Your task to perform on an android device: Open calendar and show me the fourth week of next month Image 0: 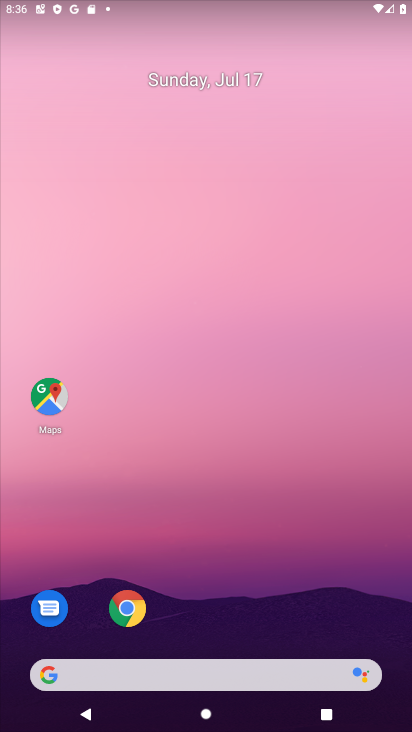
Step 0: drag from (242, 624) to (249, 352)
Your task to perform on an android device: Open calendar and show me the fourth week of next month Image 1: 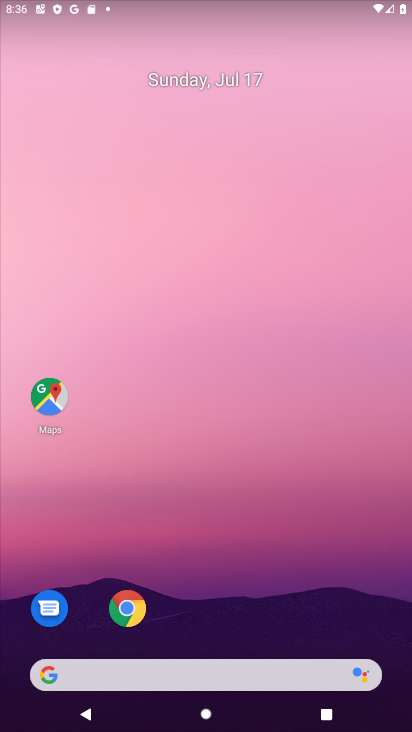
Step 1: drag from (210, 651) to (246, 305)
Your task to perform on an android device: Open calendar and show me the fourth week of next month Image 2: 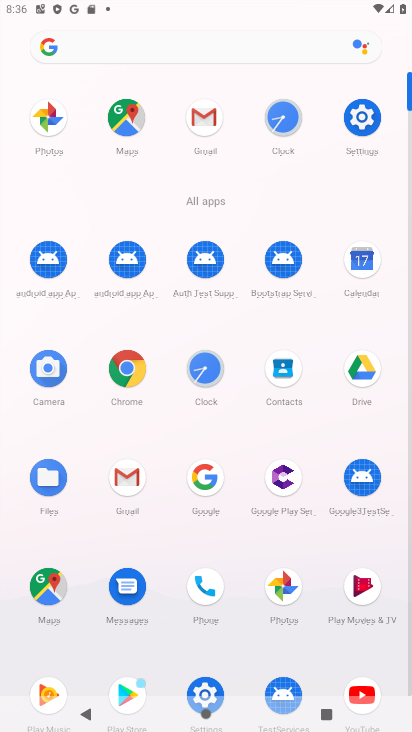
Step 2: click (374, 270)
Your task to perform on an android device: Open calendar and show me the fourth week of next month Image 3: 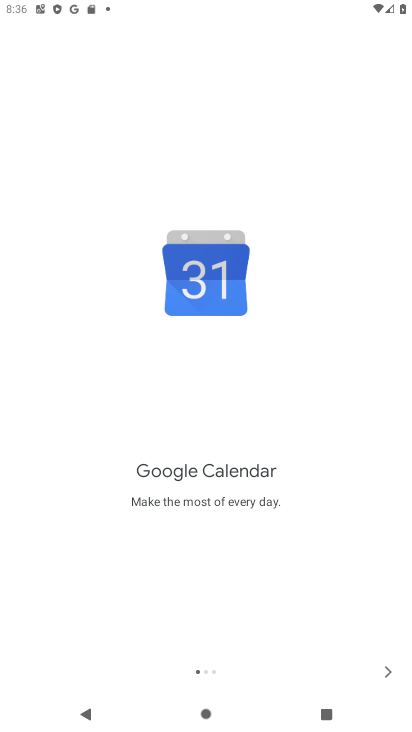
Step 3: click (387, 668)
Your task to perform on an android device: Open calendar and show me the fourth week of next month Image 4: 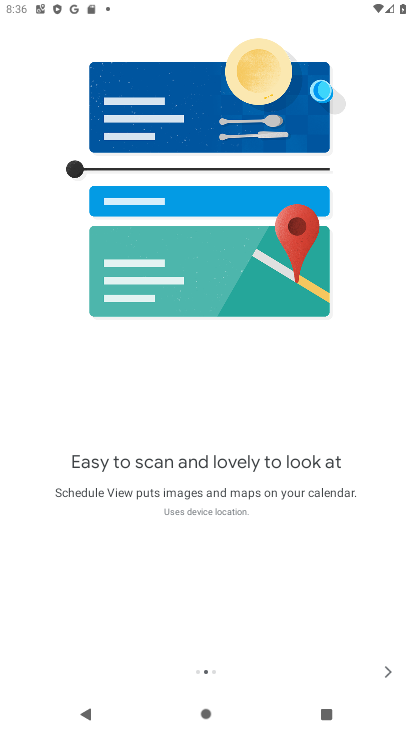
Step 4: click (387, 668)
Your task to perform on an android device: Open calendar and show me the fourth week of next month Image 5: 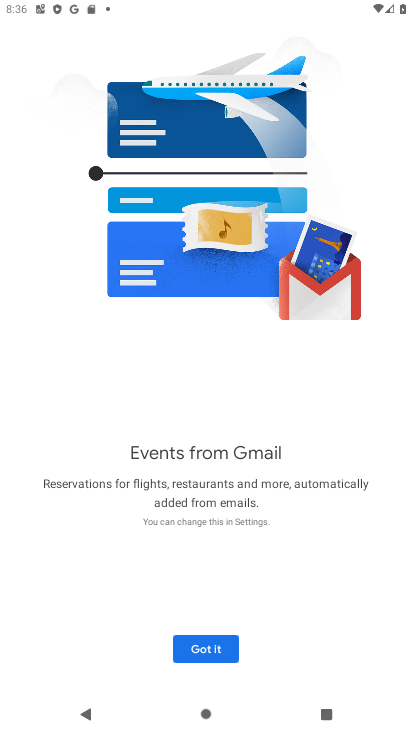
Step 5: click (201, 653)
Your task to perform on an android device: Open calendar and show me the fourth week of next month Image 6: 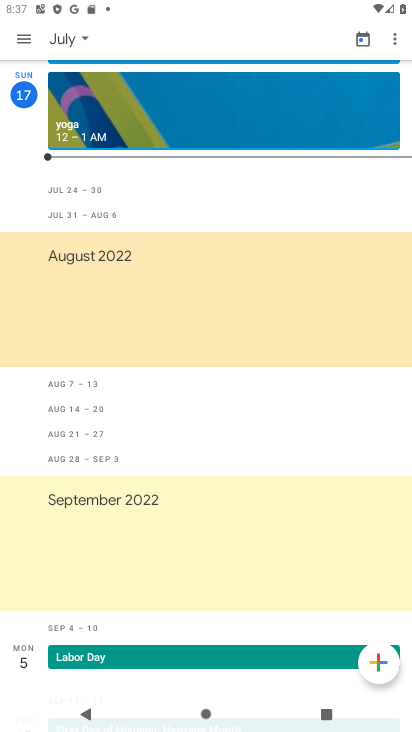
Step 6: click (64, 35)
Your task to perform on an android device: Open calendar and show me the fourth week of next month Image 7: 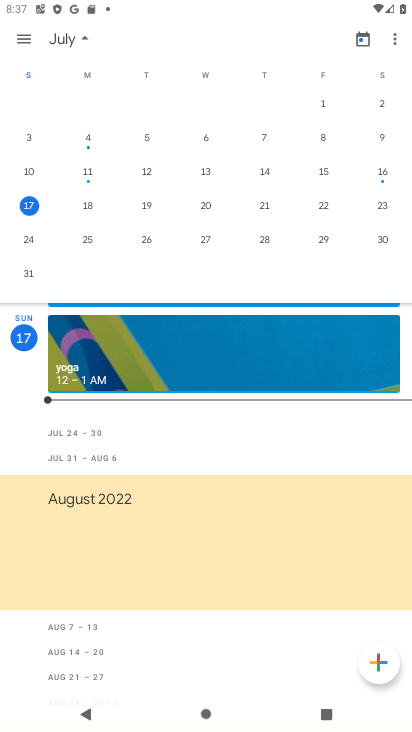
Step 7: drag from (345, 286) to (7, 317)
Your task to perform on an android device: Open calendar and show me the fourth week of next month Image 8: 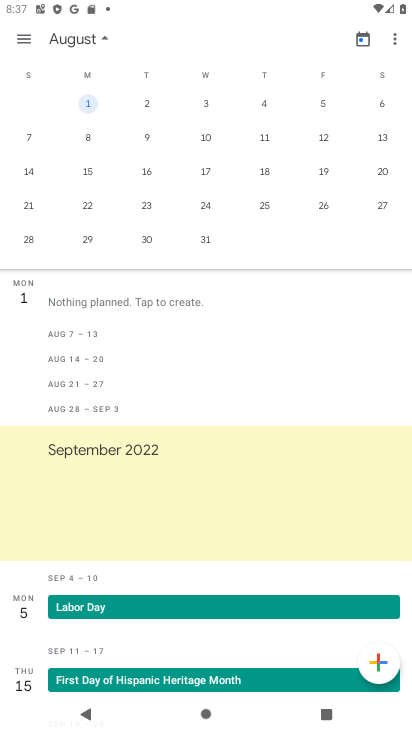
Step 8: click (33, 203)
Your task to perform on an android device: Open calendar and show me the fourth week of next month Image 9: 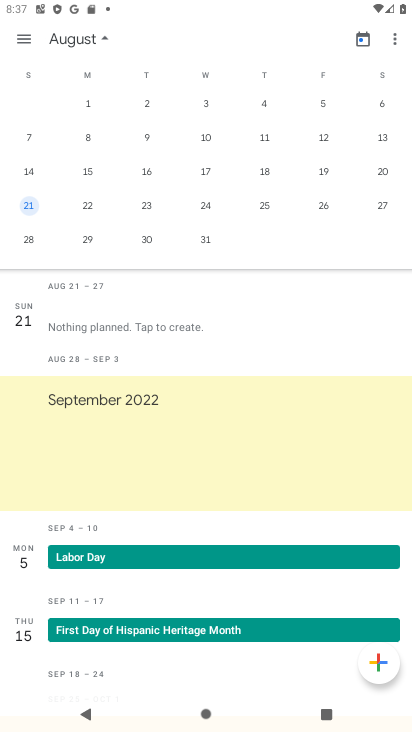
Step 9: task complete